Your task to perform on an android device: turn off sleep mode Image 0: 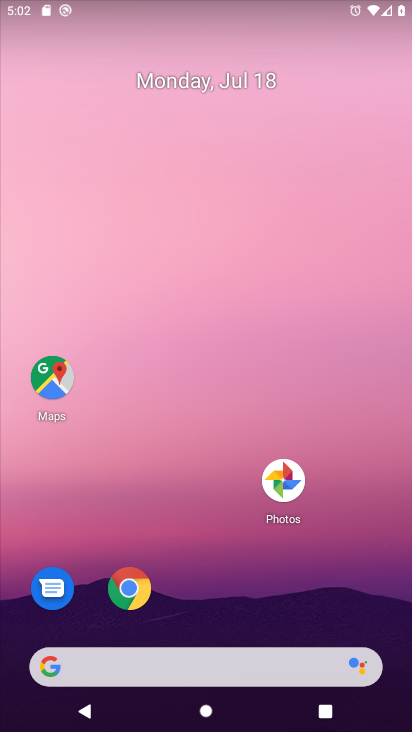
Step 0: drag from (279, 502) to (261, 289)
Your task to perform on an android device: turn off sleep mode Image 1: 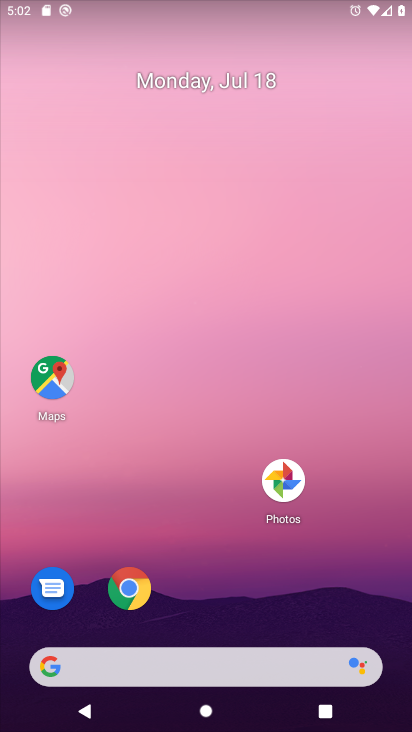
Step 1: drag from (227, 512) to (219, 159)
Your task to perform on an android device: turn off sleep mode Image 2: 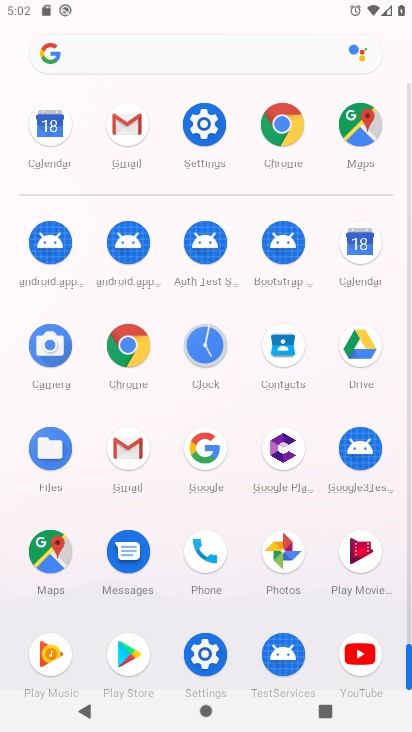
Step 2: drag from (252, 427) to (276, 145)
Your task to perform on an android device: turn off sleep mode Image 3: 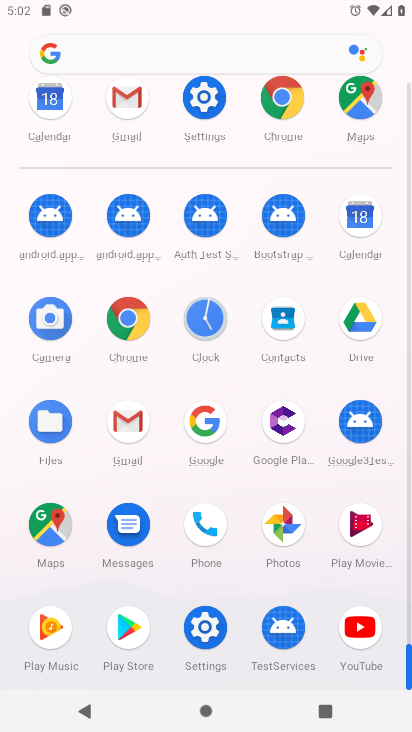
Step 3: click (200, 87)
Your task to perform on an android device: turn off sleep mode Image 4: 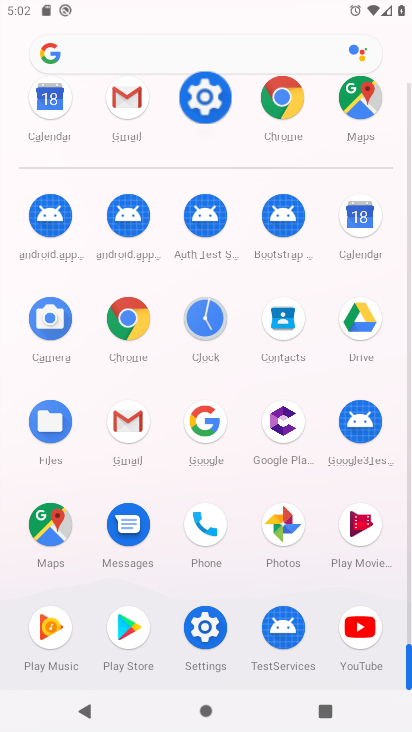
Step 4: click (205, 104)
Your task to perform on an android device: turn off sleep mode Image 5: 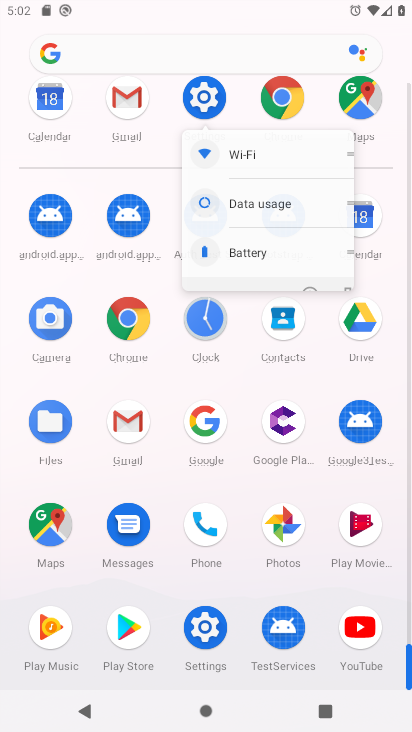
Step 5: click (208, 103)
Your task to perform on an android device: turn off sleep mode Image 6: 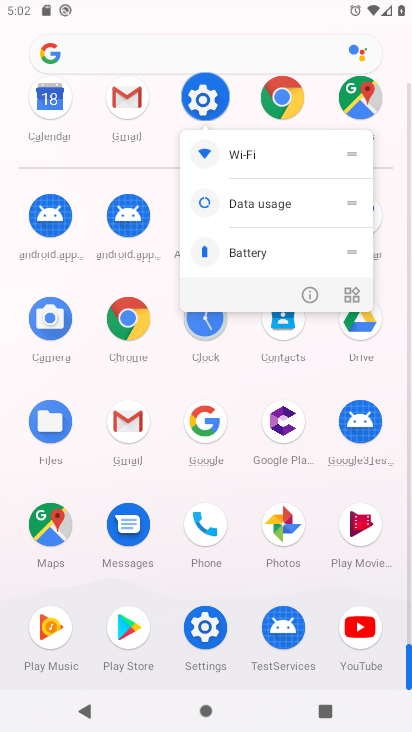
Step 6: click (211, 100)
Your task to perform on an android device: turn off sleep mode Image 7: 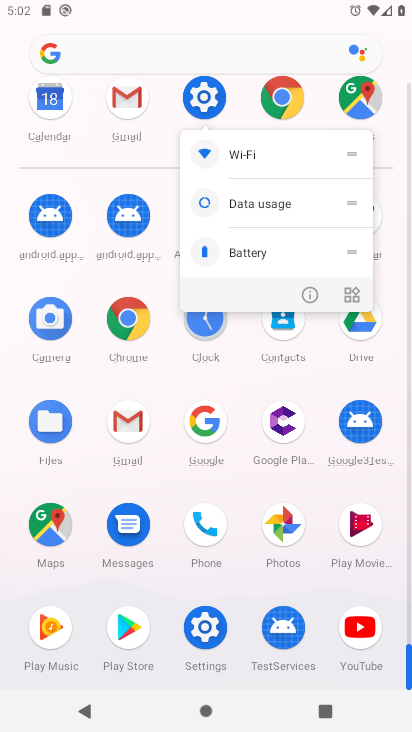
Step 7: click (211, 100)
Your task to perform on an android device: turn off sleep mode Image 8: 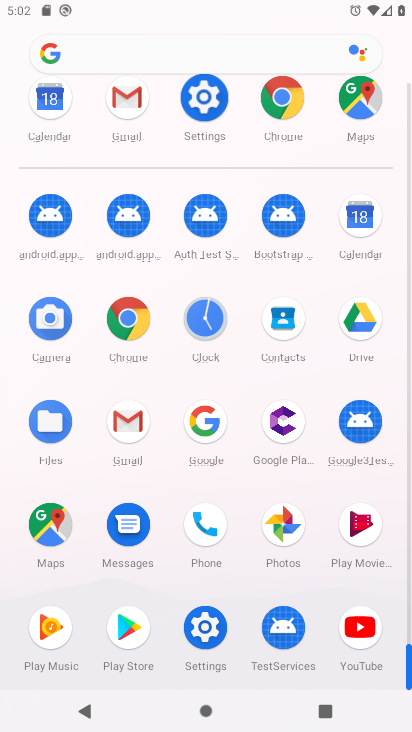
Step 8: click (211, 100)
Your task to perform on an android device: turn off sleep mode Image 9: 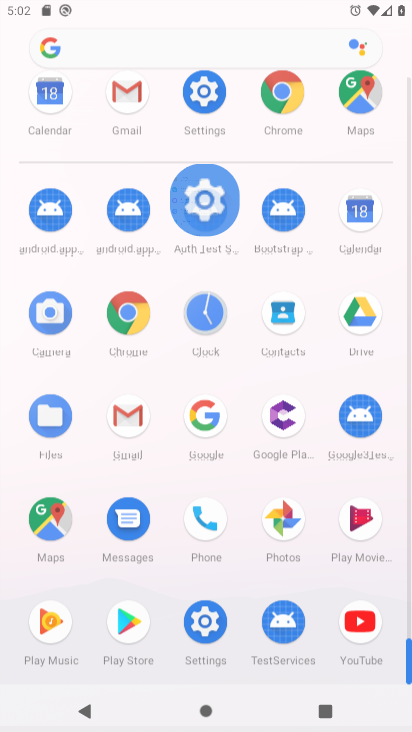
Step 9: click (212, 102)
Your task to perform on an android device: turn off sleep mode Image 10: 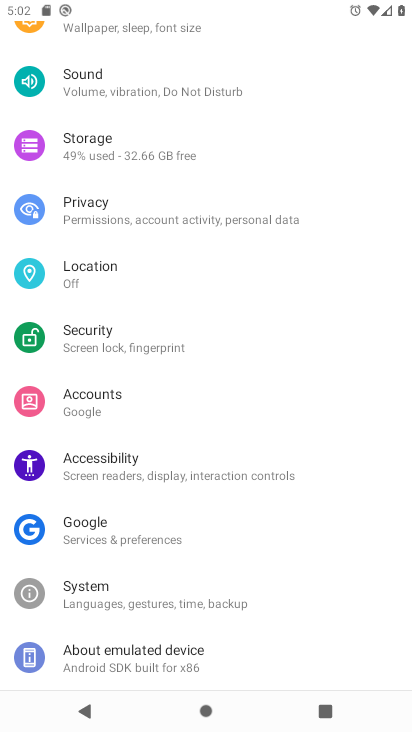
Step 10: click (213, 99)
Your task to perform on an android device: turn off sleep mode Image 11: 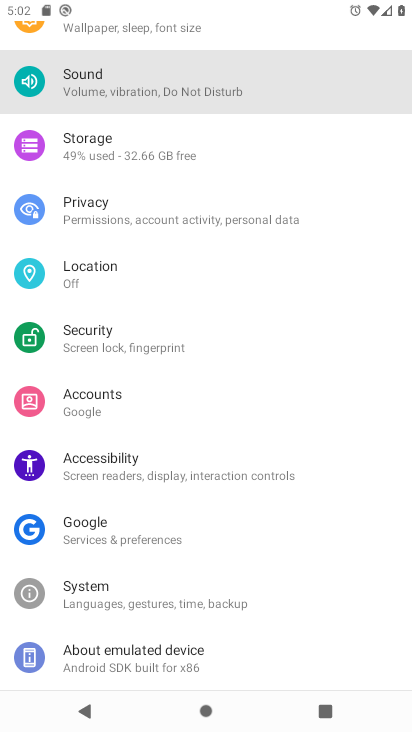
Step 11: click (218, 113)
Your task to perform on an android device: turn off sleep mode Image 12: 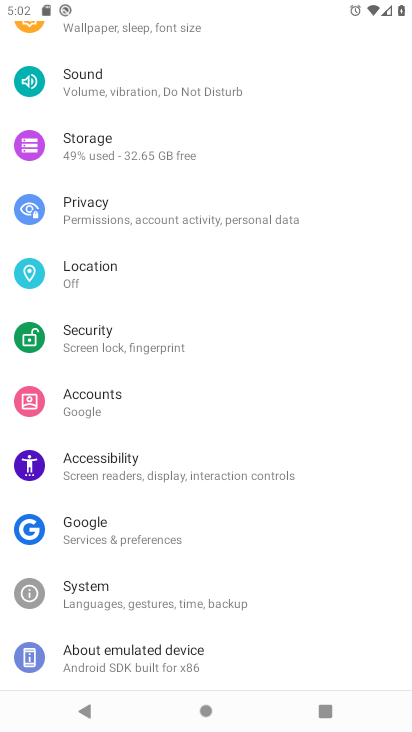
Step 12: drag from (115, 501) to (72, 185)
Your task to perform on an android device: turn off sleep mode Image 13: 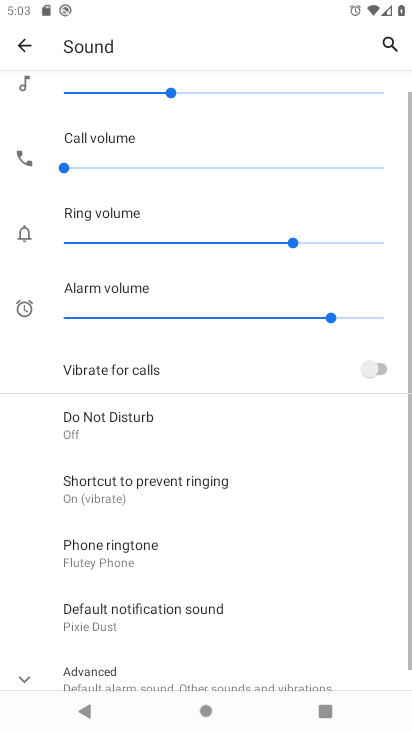
Step 13: click (24, 55)
Your task to perform on an android device: turn off sleep mode Image 14: 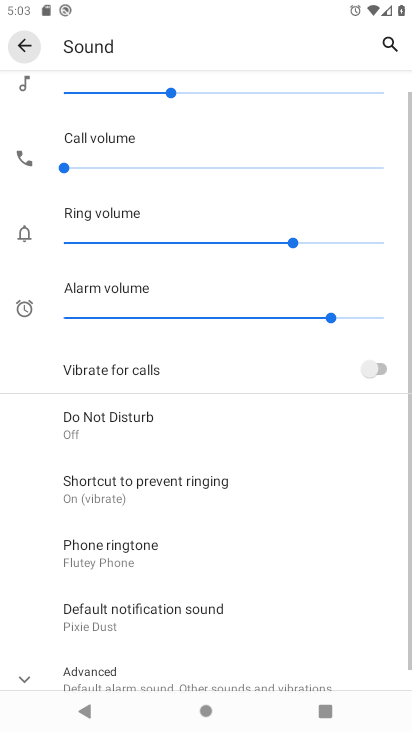
Step 14: click (24, 55)
Your task to perform on an android device: turn off sleep mode Image 15: 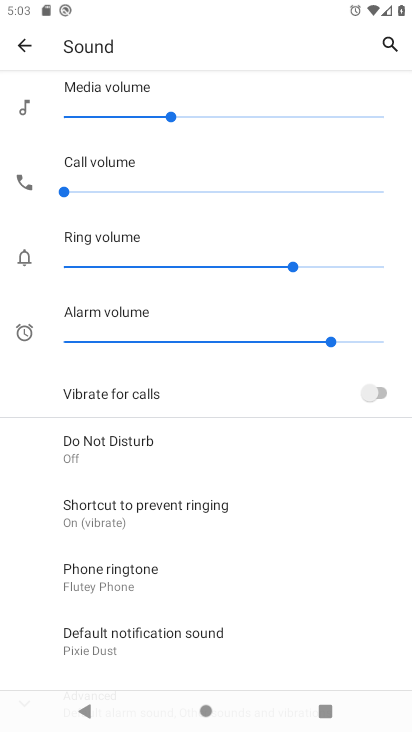
Step 15: click (25, 48)
Your task to perform on an android device: turn off sleep mode Image 16: 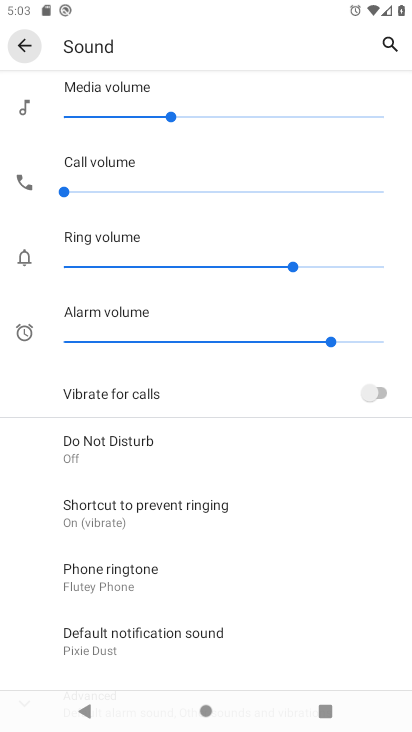
Step 16: click (25, 48)
Your task to perform on an android device: turn off sleep mode Image 17: 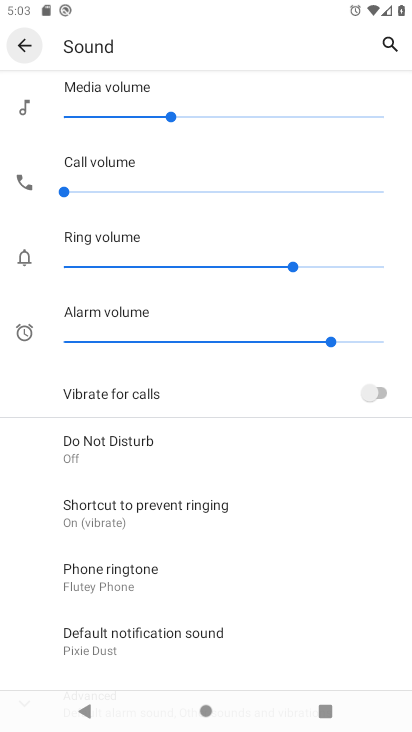
Step 17: click (25, 48)
Your task to perform on an android device: turn off sleep mode Image 18: 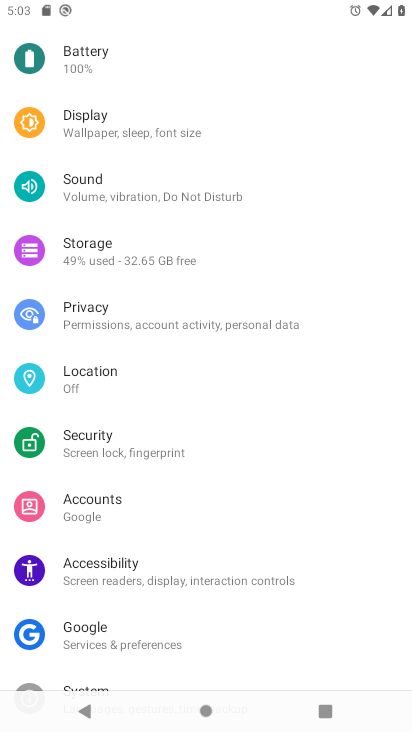
Step 18: click (94, 131)
Your task to perform on an android device: turn off sleep mode Image 19: 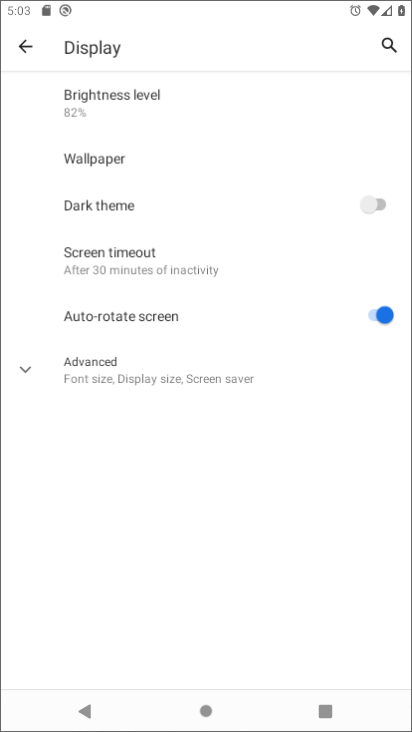
Step 19: click (110, 130)
Your task to perform on an android device: turn off sleep mode Image 20: 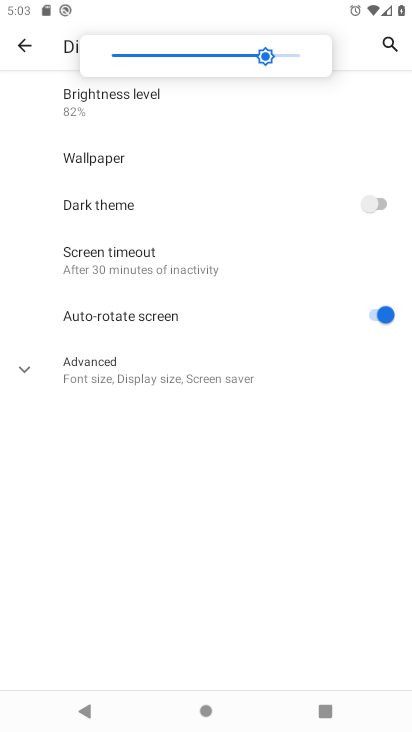
Step 20: click (221, 401)
Your task to perform on an android device: turn off sleep mode Image 21: 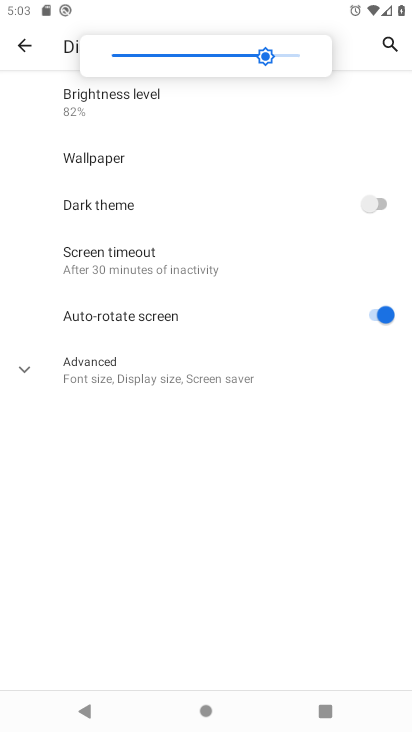
Step 21: click (236, 418)
Your task to perform on an android device: turn off sleep mode Image 22: 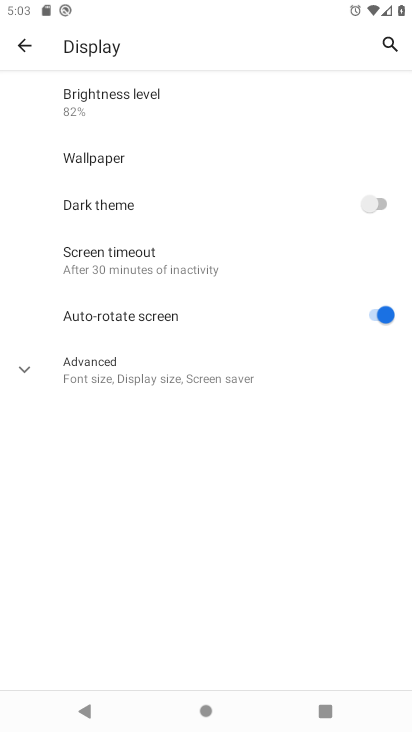
Step 22: click (269, 388)
Your task to perform on an android device: turn off sleep mode Image 23: 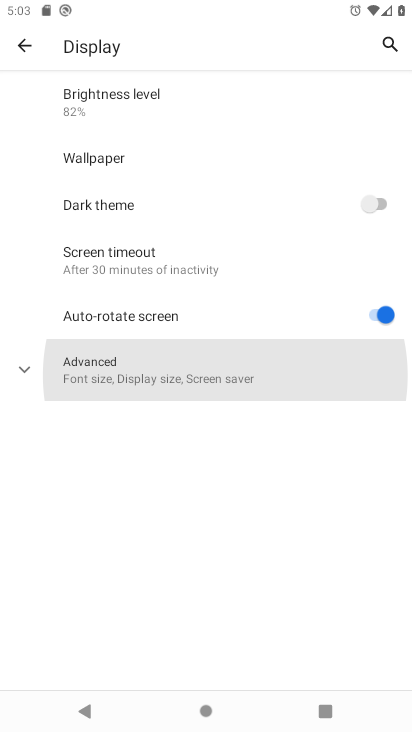
Step 23: click (98, 258)
Your task to perform on an android device: turn off sleep mode Image 24: 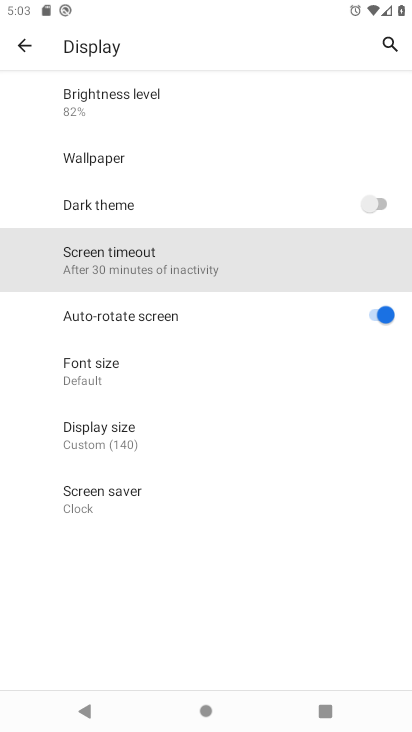
Step 24: click (100, 258)
Your task to perform on an android device: turn off sleep mode Image 25: 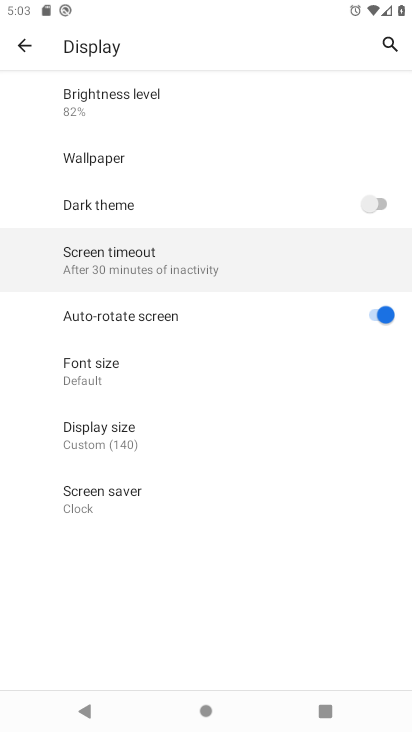
Step 25: click (104, 257)
Your task to perform on an android device: turn off sleep mode Image 26: 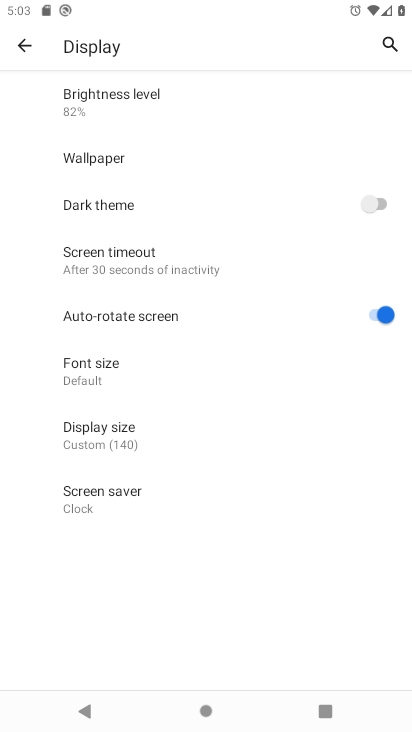
Step 26: press back button
Your task to perform on an android device: turn off sleep mode Image 27: 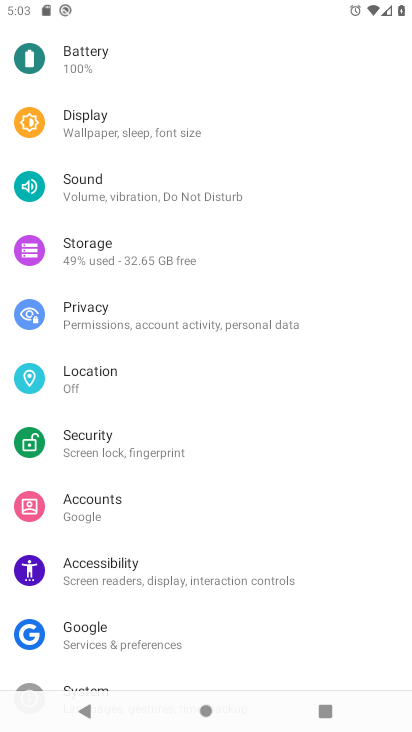
Step 27: click (108, 122)
Your task to perform on an android device: turn off sleep mode Image 28: 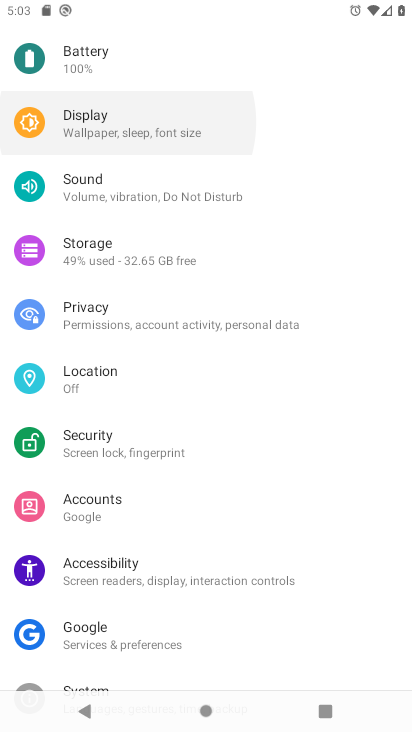
Step 28: click (111, 121)
Your task to perform on an android device: turn off sleep mode Image 29: 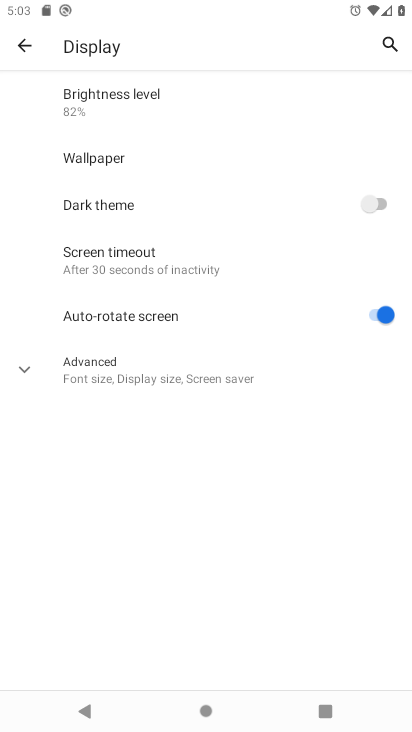
Step 29: click (142, 261)
Your task to perform on an android device: turn off sleep mode Image 30: 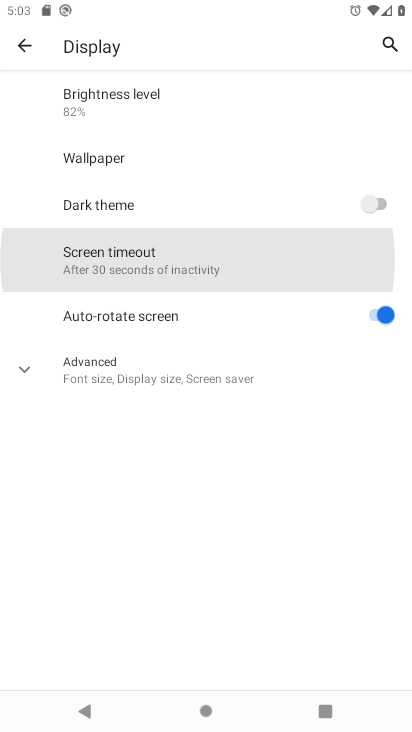
Step 30: click (143, 259)
Your task to perform on an android device: turn off sleep mode Image 31: 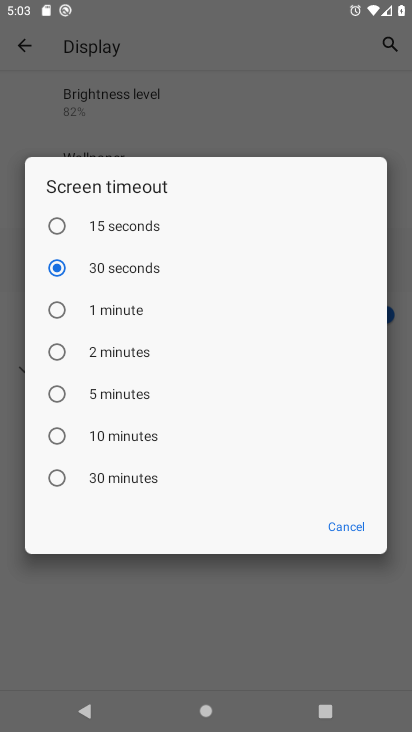
Step 31: task complete